Your task to perform on an android device: install app "HBO Max: Stream TV & Movies" Image 0: 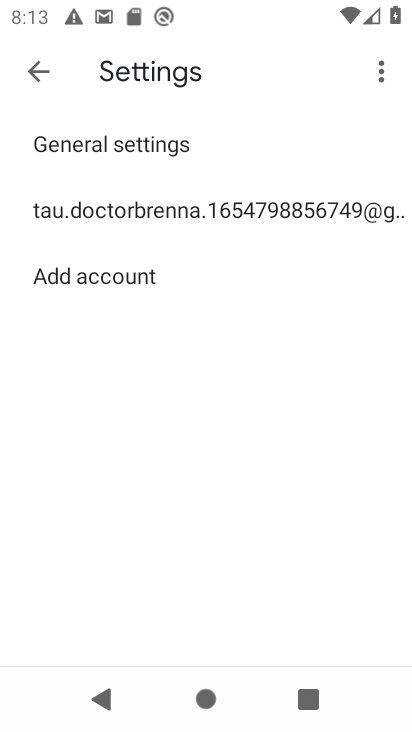
Step 0: press home button
Your task to perform on an android device: install app "HBO Max: Stream TV & Movies" Image 1: 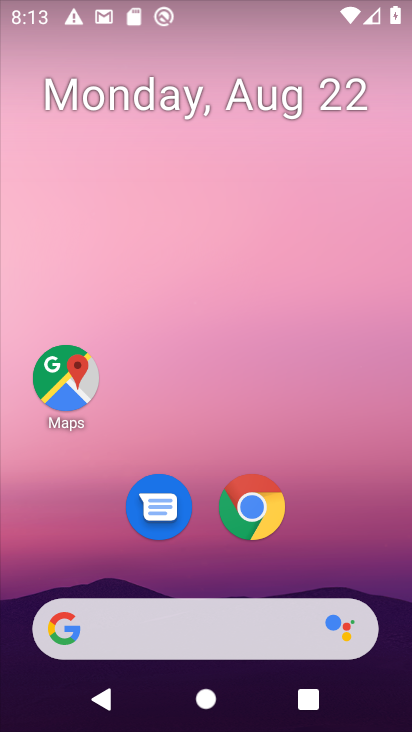
Step 1: drag from (188, 564) to (211, 243)
Your task to perform on an android device: install app "HBO Max: Stream TV & Movies" Image 2: 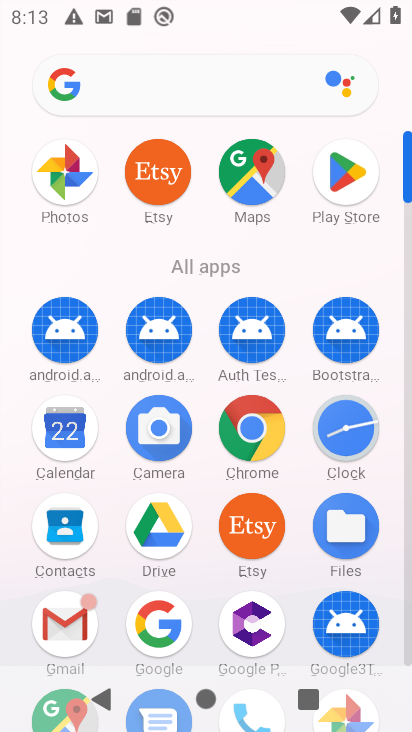
Step 2: click (359, 188)
Your task to perform on an android device: install app "HBO Max: Stream TV & Movies" Image 3: 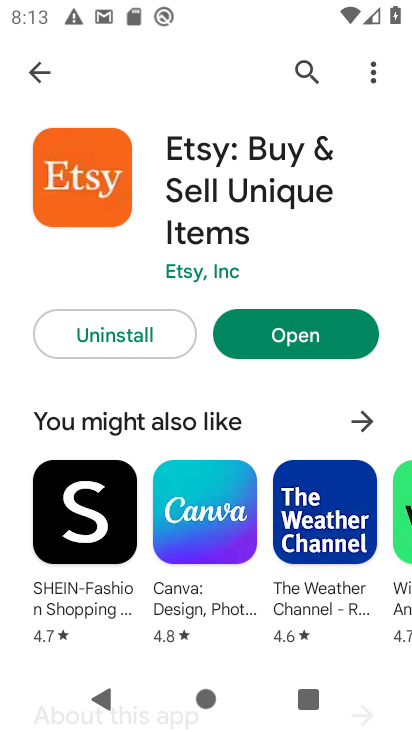
Step 3: click (41, 66)
Your task to perform on an android device: install app "HBO Max: Stream TV & Movies" Image 4: 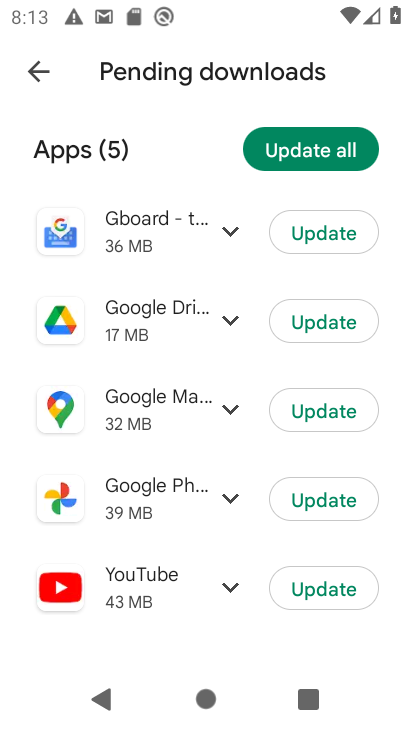
Step 4: click (41, 66)
Your task to perform on an android device: install app "HBO Max: Stream TV & Movies" Image 5: 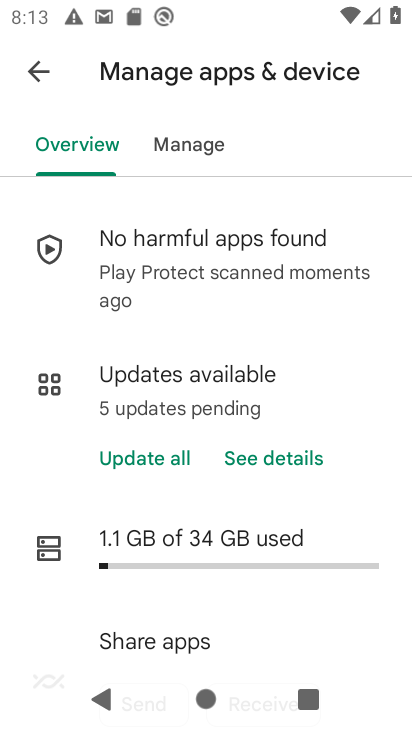
Step 5: click (41, 75)
Your task to perform on an android device: install app "HBO Max: Stream TV & Movies" Image 6: 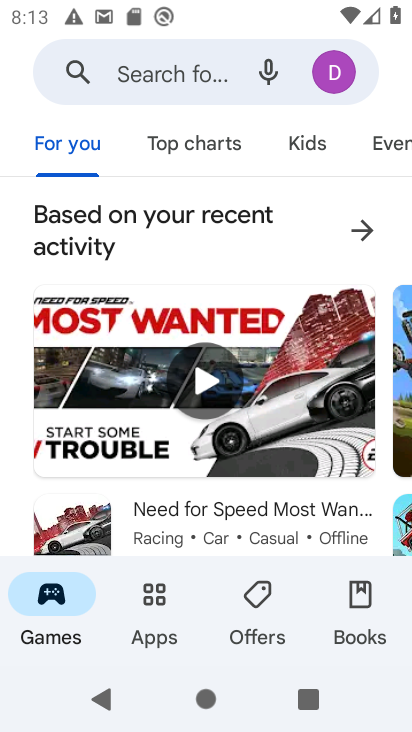
Step 6: click (141, 69)
Your task to perform on an android device: install app "HBO Max: Stream TV & Movies" Image 7: 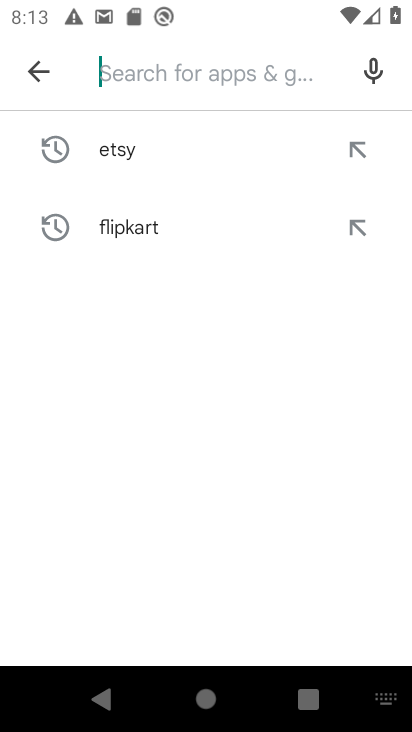
Step 7: type "HBO Max"
Your task to perform on an android device: install app "HBO Max: Stream TV & Movies" Image 8: 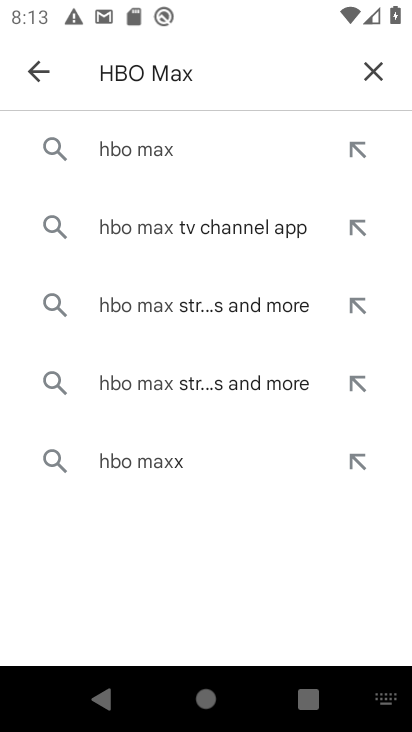
Step 8: click (163, 160)
Your task to perform on an android device: install app "HBO Max: Stream TV & Movies" Image 9: 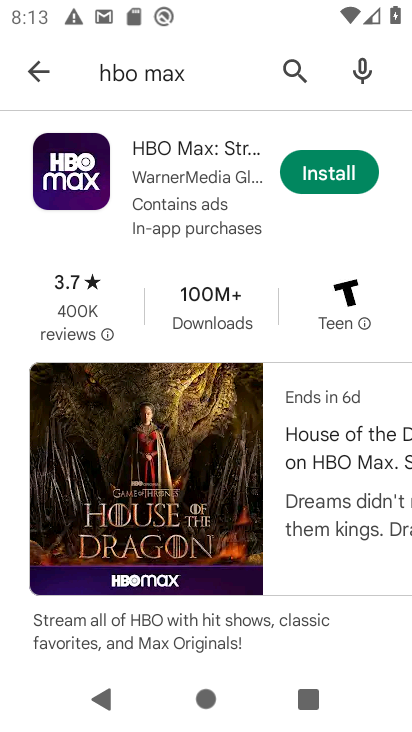
Step 9: click (330, 169)
Your task to perform on an android device: install app "HBO Max: Stream TV & Movies" Image 10: 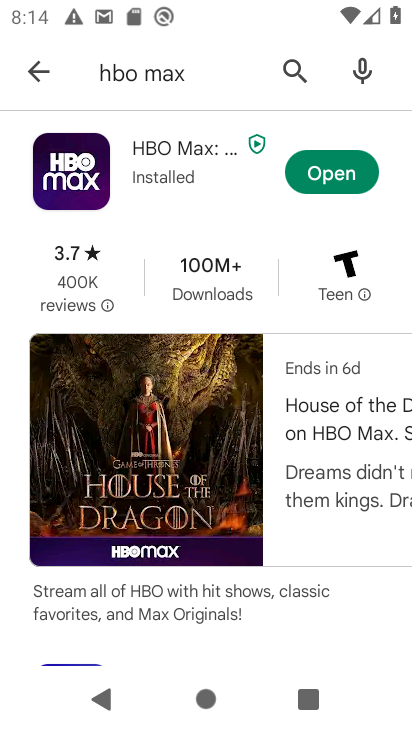
Step 10: task complete